Your task to perform on an android device: Toggle the flashlight Image 0: 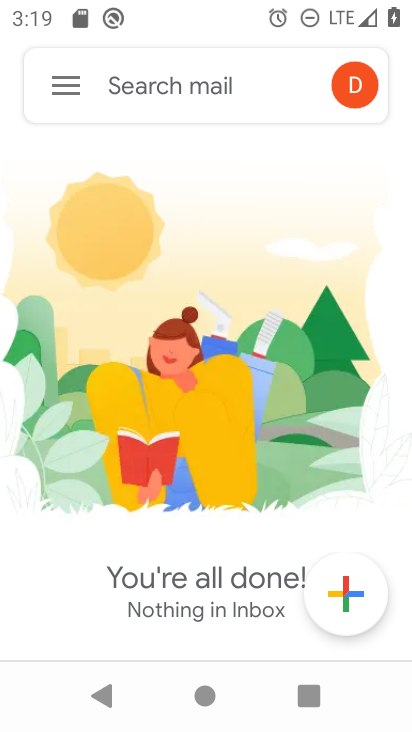
Step 0: press home button
Your task to perform on an android device: Toggle the flashlight Image 1: 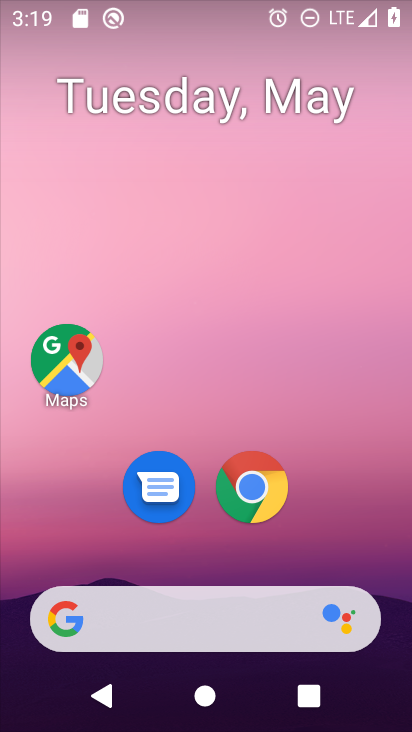
Step 1: drag from (77, 582) to (306, 256)
Your task to perform on an android device: Toggle the flashlight Image 2: 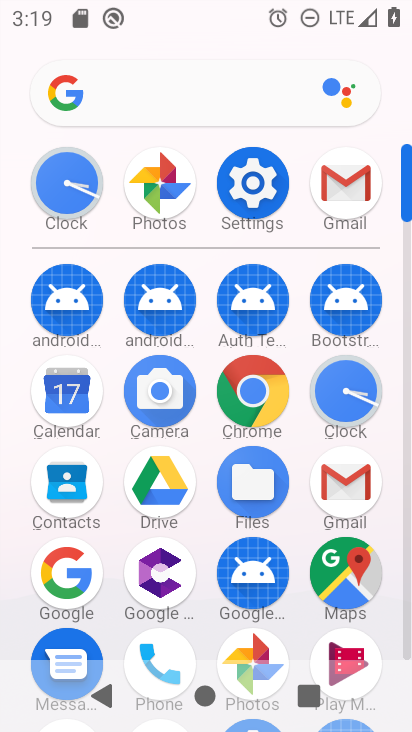
Step 2: click (244, 200)
Your task to perform on an android device: Toggle the flashlight Image 3: 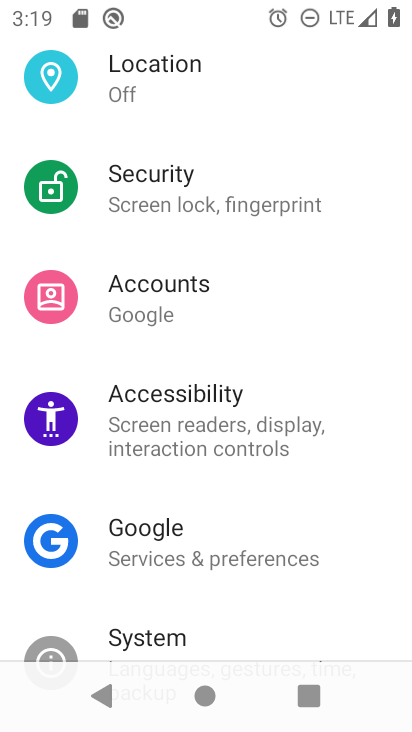
Step 3: click (183, 468)
Your task to perform on an android device: Toggle the flashlight Image 4: 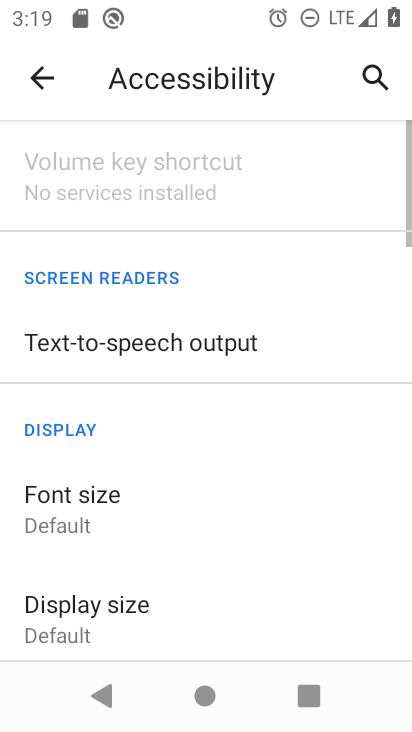
Step 4: task complete